Your task to perform on an android device: delete browsing data in the chrome app Image 0: 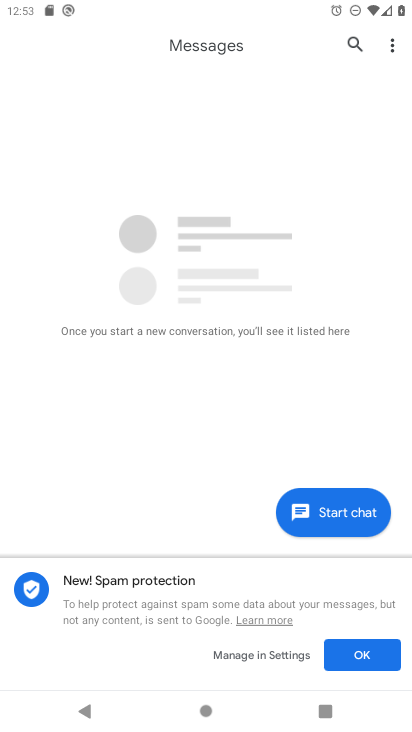
Step 0: press home button
Your task to perform on an android device: delete browsing data in the chrome app Image 1: 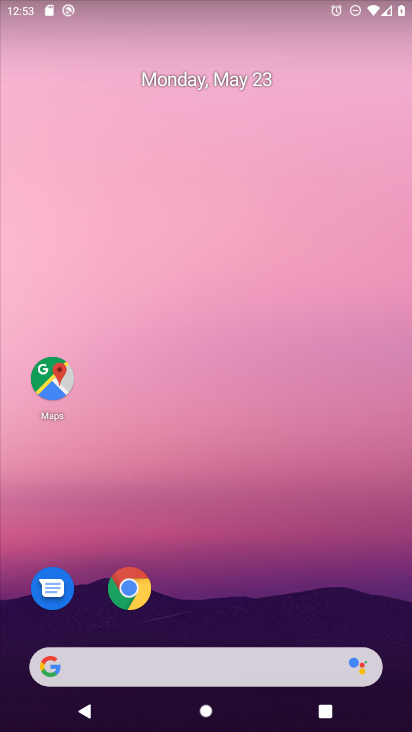
Step 1: drag from (271, 690) to (179, 178)
Your task to perform on an android device: delete browsing data in the chrome app Image 2: 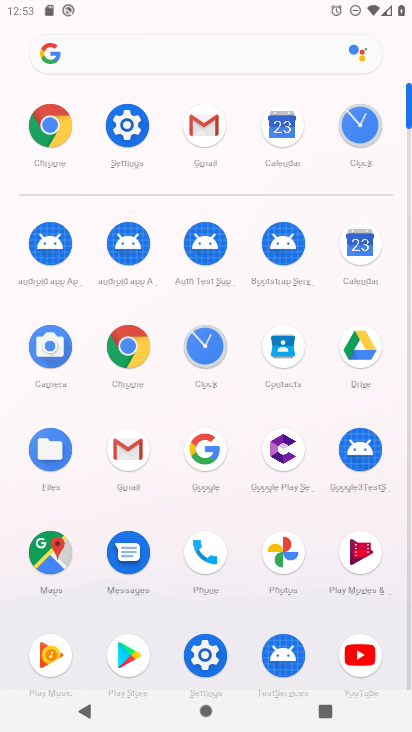
Step 2: click (49, 132)
Your task to perform on an android device: delete browsing data in the chrome app Image 3: 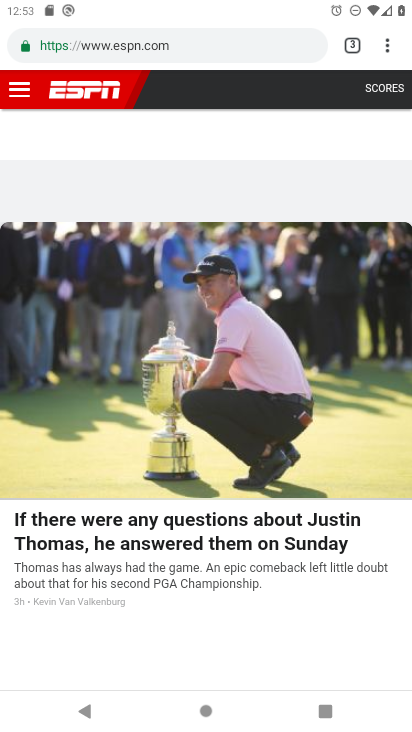
Step 3: click (381, 39)
Your task to perform on an android device: delete browsing data in the chrome app Image 4: 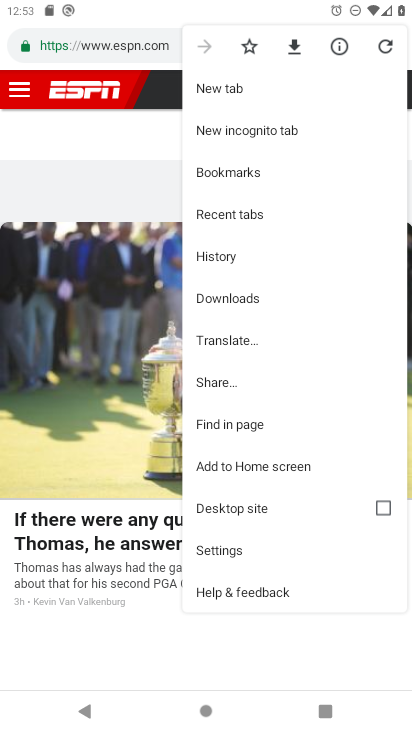
Step 4: click (236, 260)
Your task to perform on an android device: delete browsing data in the chrome app Image 5: 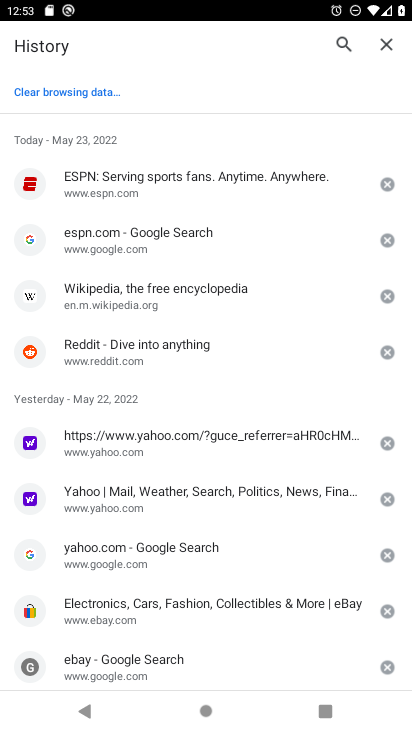
Step 5: click (84, 94)
Your task to perform on an android device: delete browsing data in the chrome app Image 6: 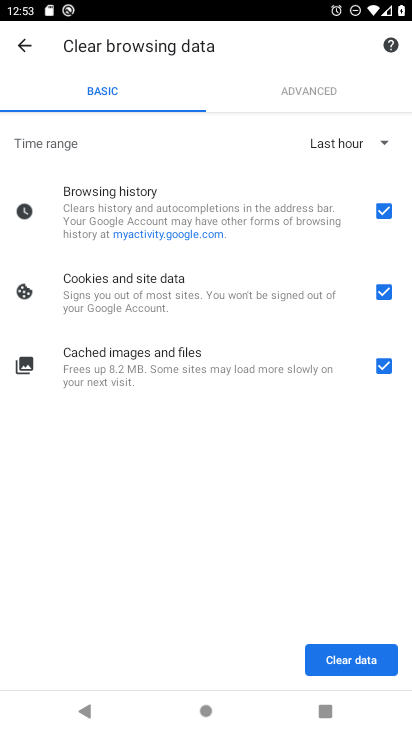
Step 6: click (368, 209)
Your task to perform on an android device: delete browsing data in the chrome app Image 7: 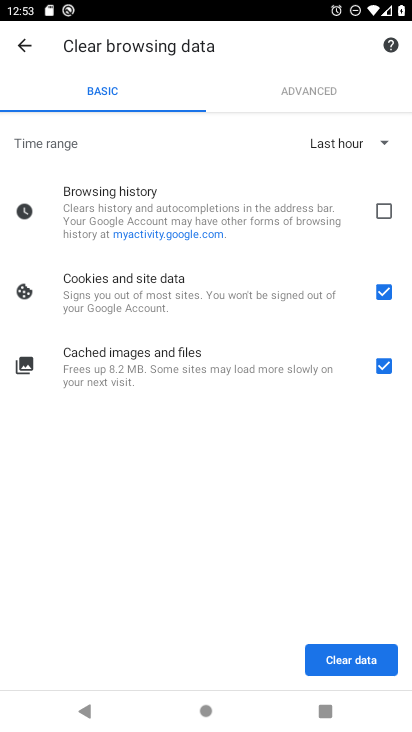
Step 7: click (393, 219)
Your task to perform on an android device: delete browsing data in the chrome app Image 8: 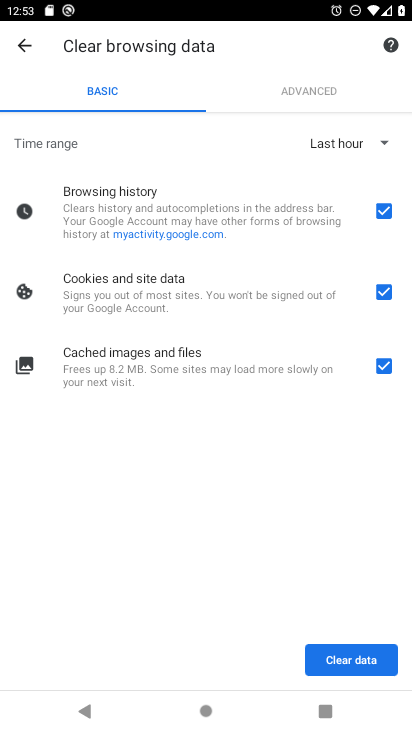
Step 8: click (384, 288)
Your task to perform on an android device: delete browsing data in the chrome app Image 9: 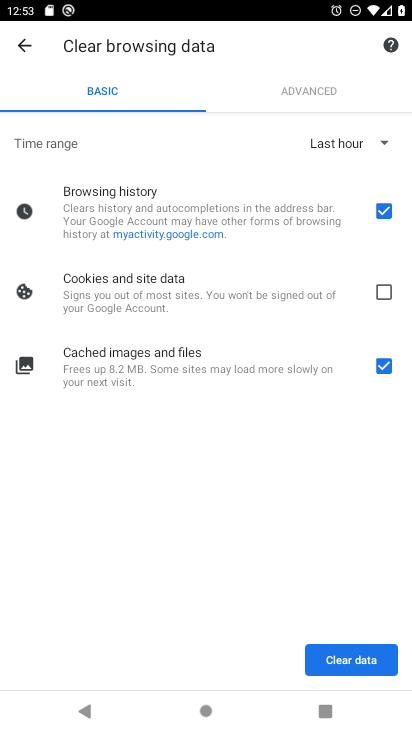
Step 9: click (378, 363)
Your task to perform on an android device: delete browsing data in the chrome app Image 10: 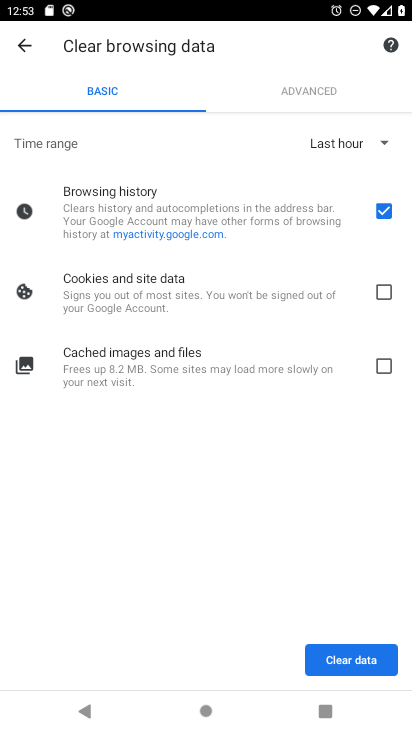
Step 10: click (351, 665)
Your task to perform on an android device: delete browsing data in the chrome app Image 11: 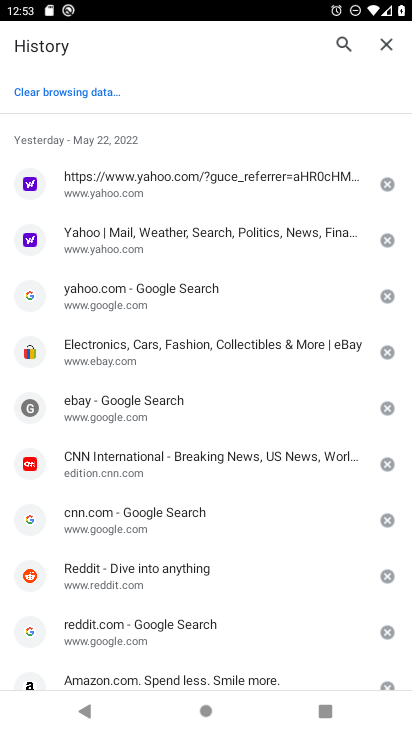
Step 11: task complete